Your task to perform on an android device: turn off priority inbox in the gmail app Image 0: 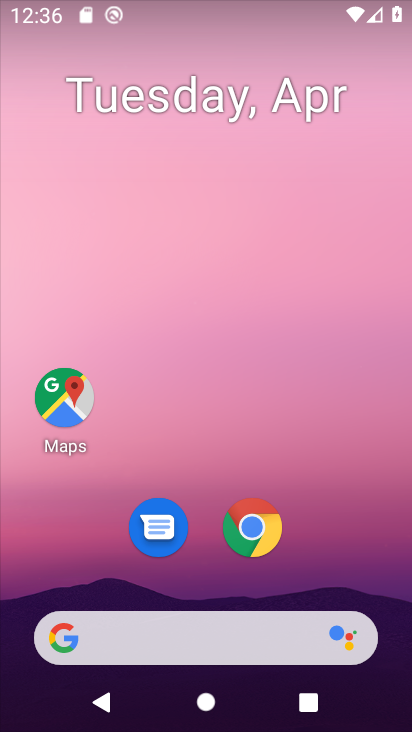
Step 0: drag from (126, 592) to (221, 79)
Your task to perform on an android device: turn off priority inbox in the gmail app Image 1: 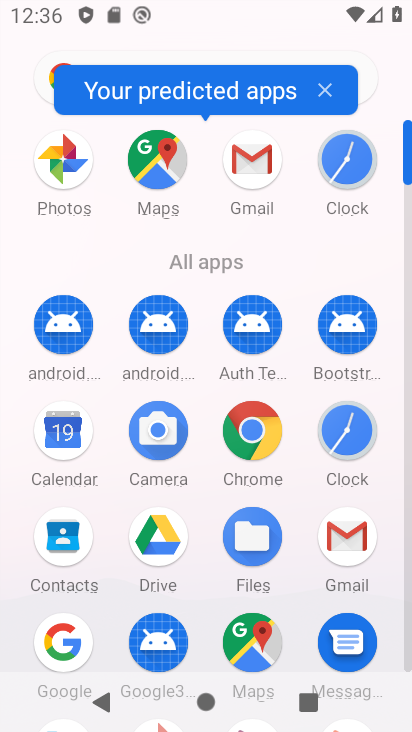
Step 1: click (256, 163)
Your task to perform on an android device: turn off priority inbox in the gmail app Image 2: 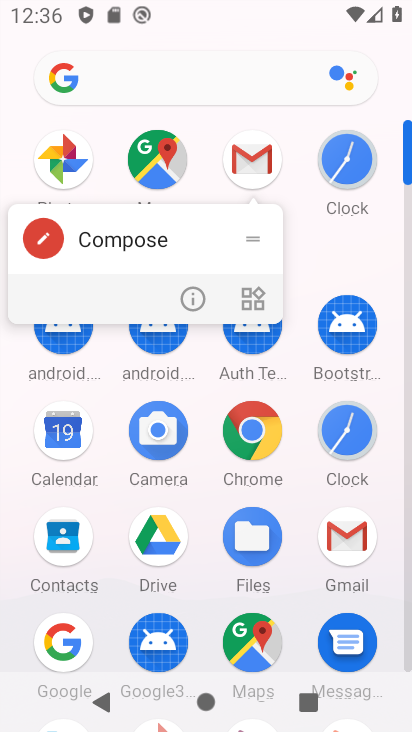
Step 2: click (256, 163)
Your task to perform on an android device: turn off priority inbox in the gmail app Image 3: 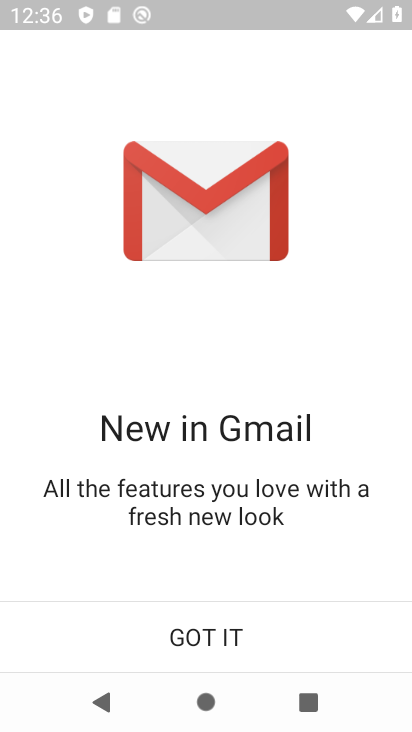
Step 3: click (214, 632)
Your task to perform on an android device: turn off priority inbox in the gmail app Image 4: 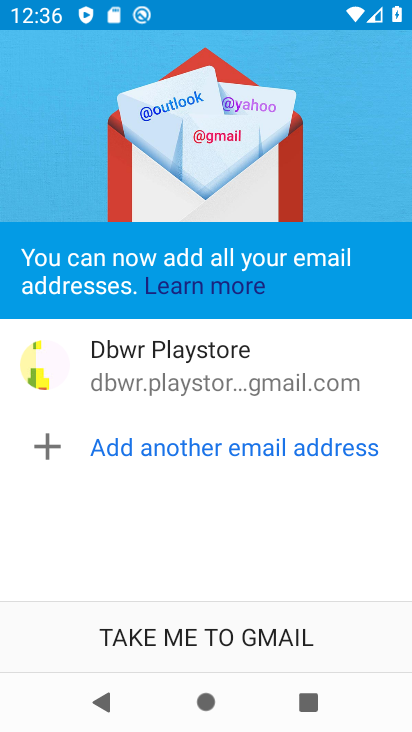
Step 4: click (214, 632)
Your task to perform on an android device: turn off priority inbox in the gmail app Image 5: 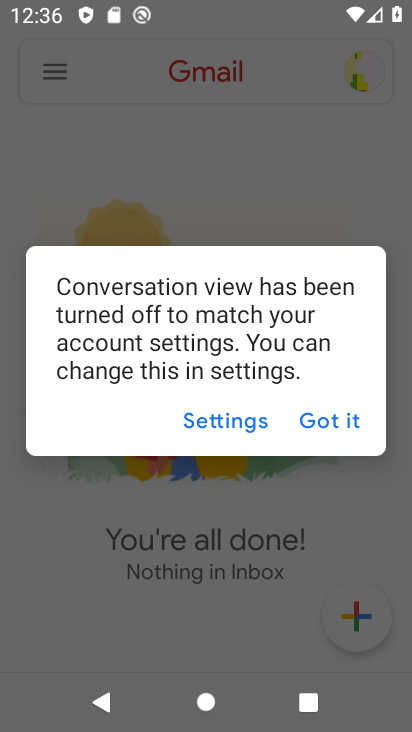
Step 5: click (314, 423)
Your task to perform on an android device: turn off priority inbox in the gmail app Image 6: 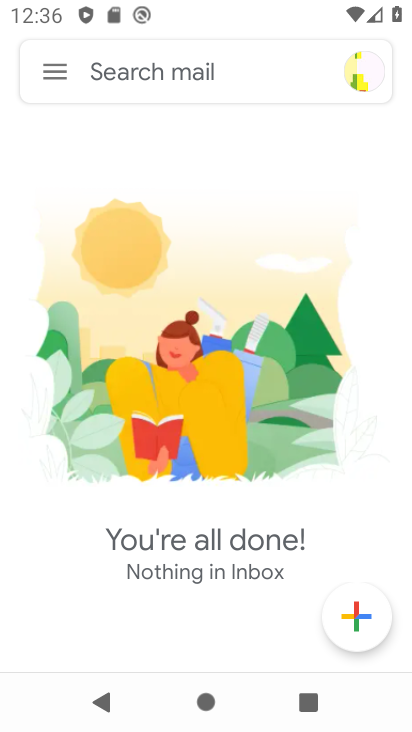
Step 6: click (52, 74)
Your task to perform on an android device: turn off priority inbox in the gmail app Image 7: 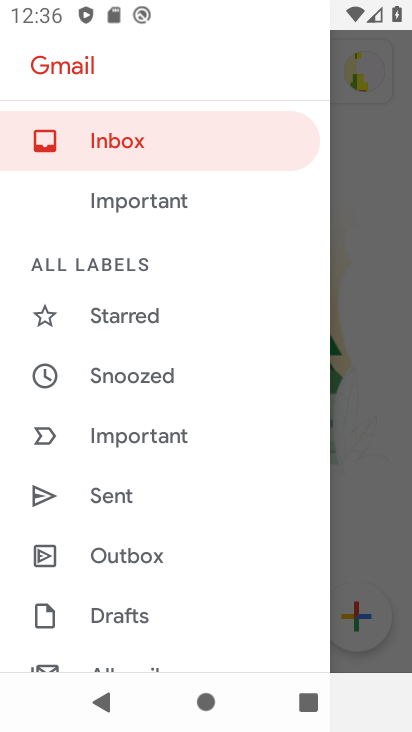
Step 7: drag from (172, 551) to (204, 417)
Your task to perform on an android device: turn off priority inbox in the gmail app Image 8: 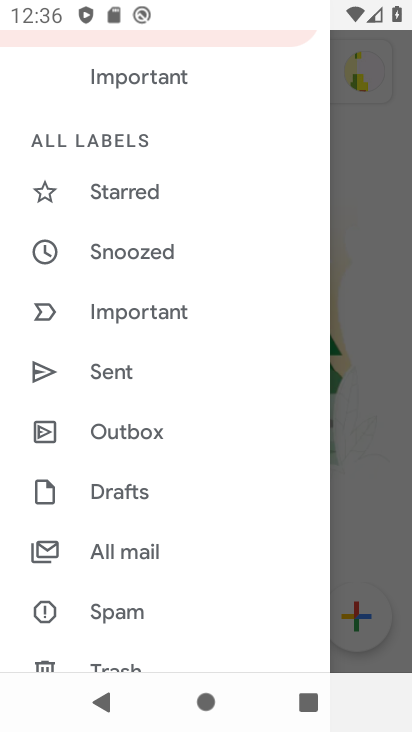
Step 8: drag from (154, 575) to (178, 453)
Your task to perform on an android device: turn off priority inbox in the gmail app Image 9: 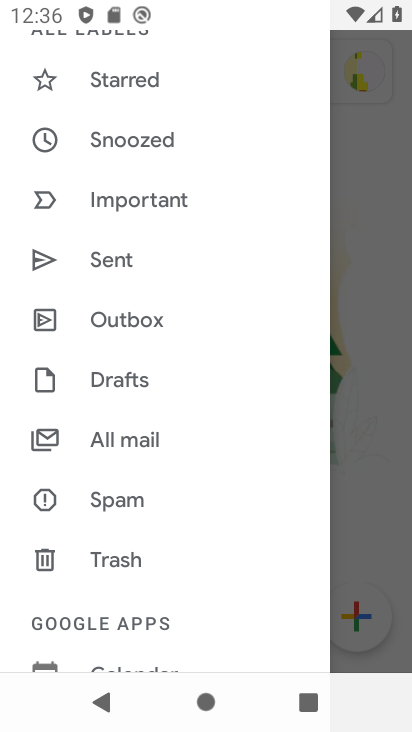
Step 9: drag from (176, 565) to (201, 479)
Your task to perform on an android device: turn off priority inbox in the gmail app Image 10: 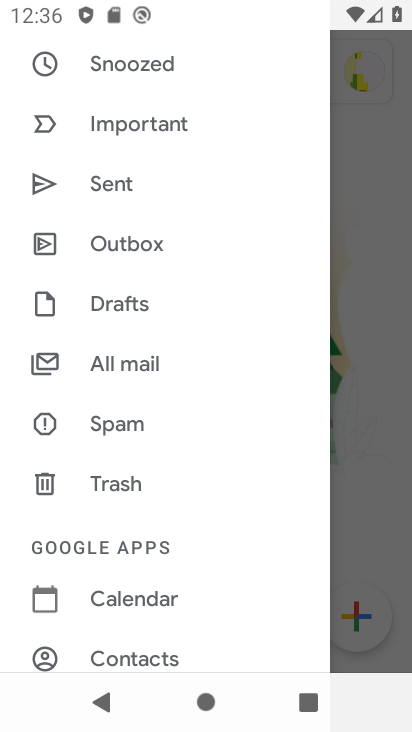
Step 10: drag from (195, 586) to (213, 454)
Your task to perform on an android device: turn off priority inbox in the gmail app Image 11: 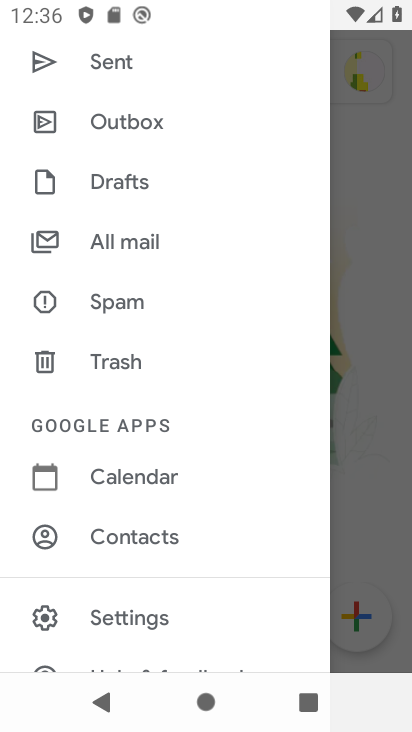
Step 11: click (139, 618)
Your task to perform on an android device: turn off priority inbox in the gmail app Image 12: 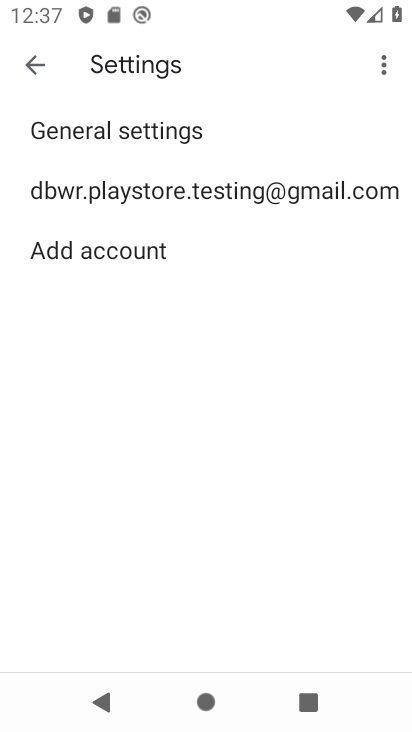
Step 12: click (220, 195)
Your task to perform on an android device: turn off priority inbox in the gmail app Image 13: 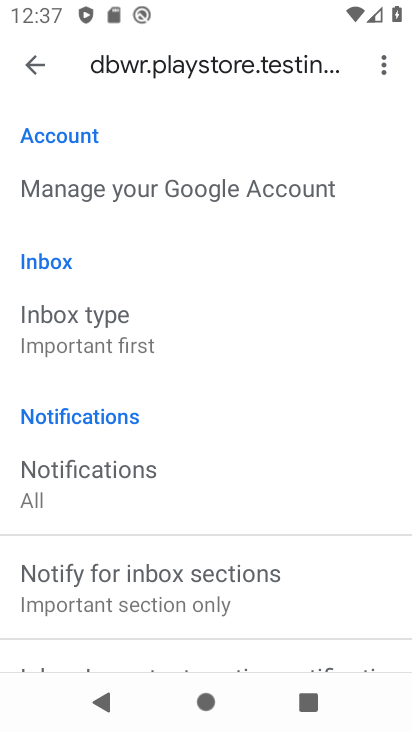
Step 13: click (110, 347)
Your task to perform on an android device: turn off priority inbox in the gmail app Image 14: 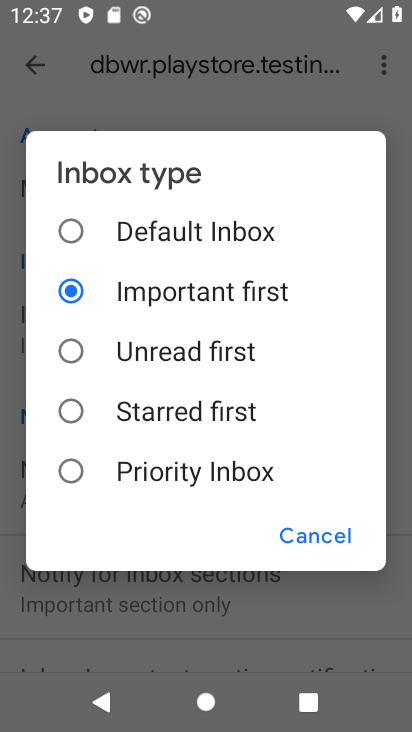
Step 14: task complete